Your task to perform on an android device: uninstall "Clock" Image 0: 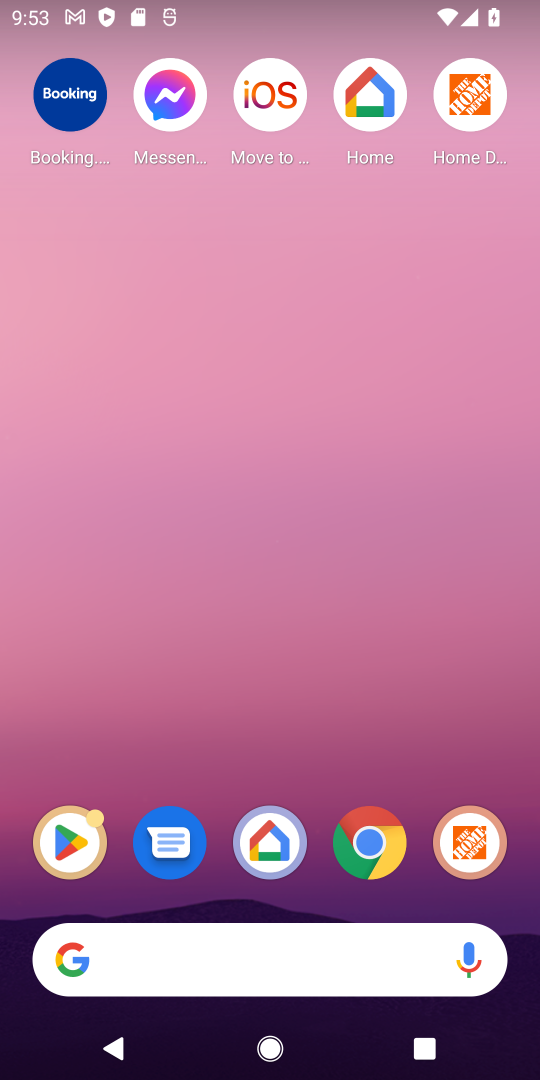
Step 0: click (397, 1)
Your task to perform on an android device: uninstall "Clock" Image 1: 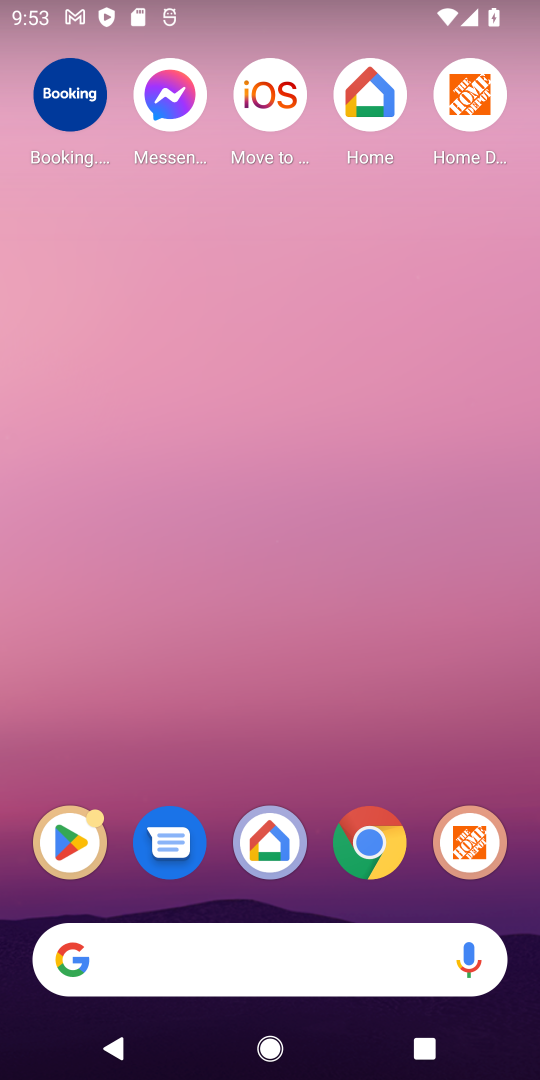
Step 1: drag from (279, 573) to (432, 20)
Your task to perform on an android device: uninstall "Clock" Image 2: 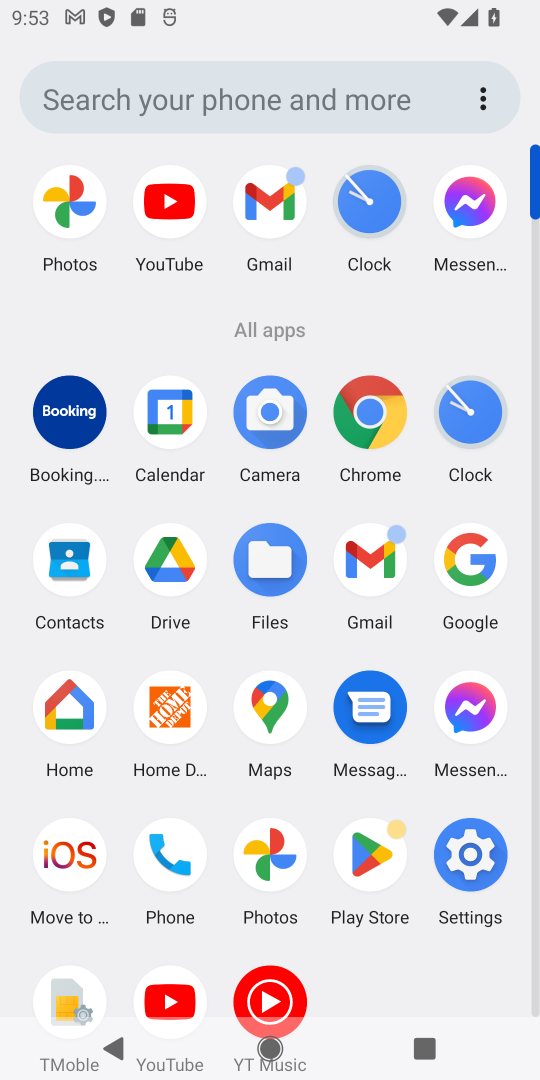
Step 2: click (459, 427)
Your task to perform on an android device: uninstall "Clock" Image 3: 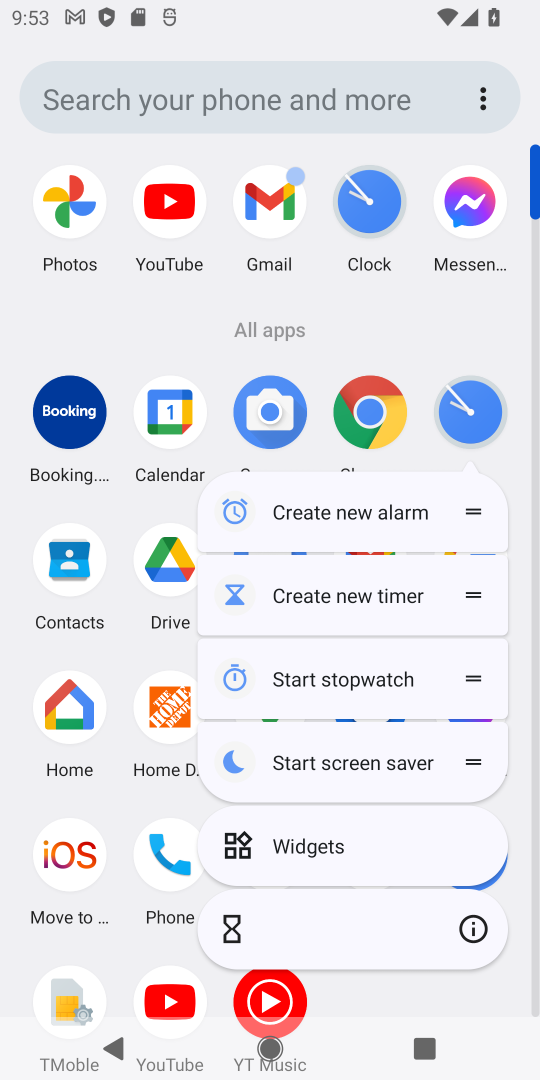
Step 3: click (462, 407)
Your task to perform on an android device: uninstall "Clock" Image 4: 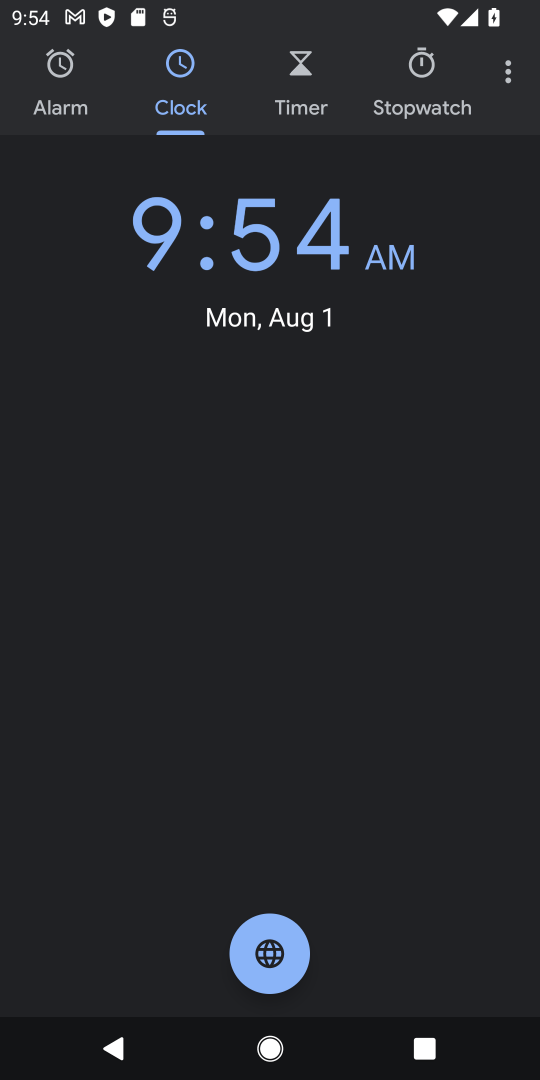
Step 4: task complete